Your task to perform on an android device: Show me the alarms in the clock app Image 0: 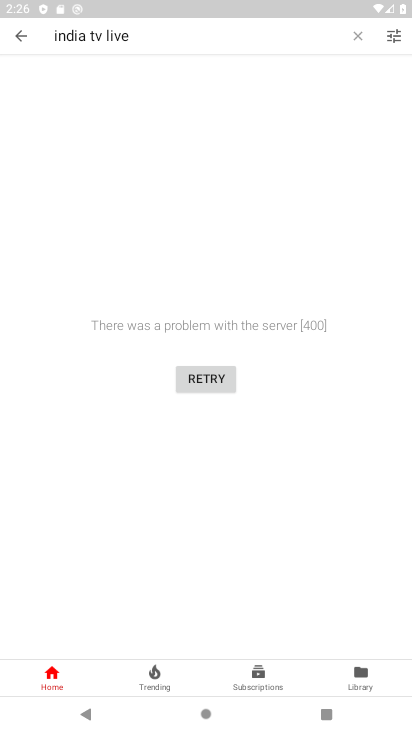
Step 0: press home button
Your task to perform on an android device: Show me the alarms in the clock app Image 1: 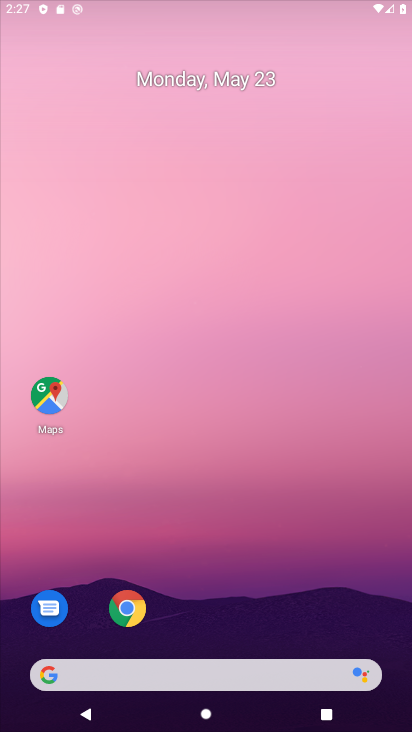
Step 1: drag from (251, 583) to (240, 238)
Your task to perform on an android device: Show me the alarms in the clock app Image 2: 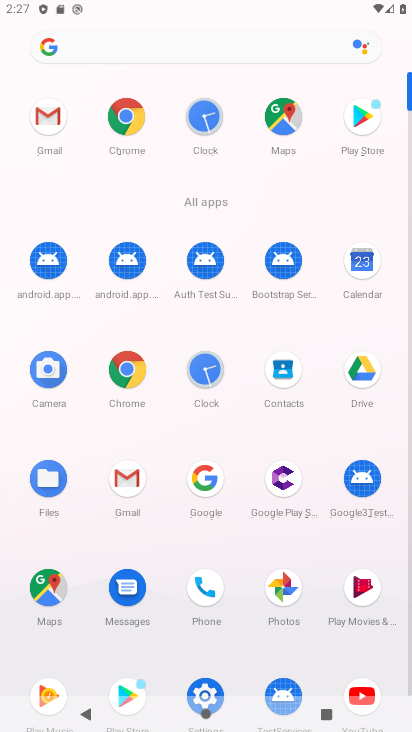
Step 2: click (205, 368)
Your task to perform on an android device: Show me the alarms in the clock app Image 3: 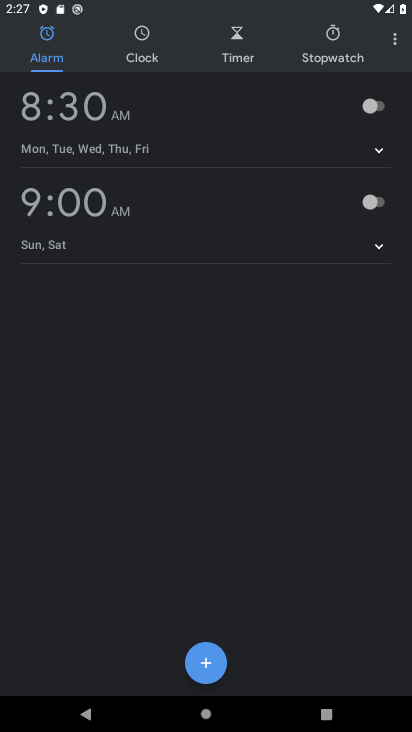
Step 3: task complete